Your task to perform on an android device: delete location history Image 0: 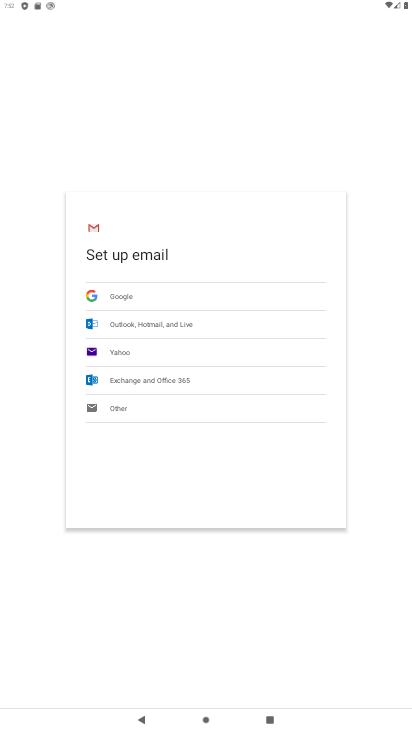
Step 0: press home button
Your task to perform on an android device: delete location history Image 1: 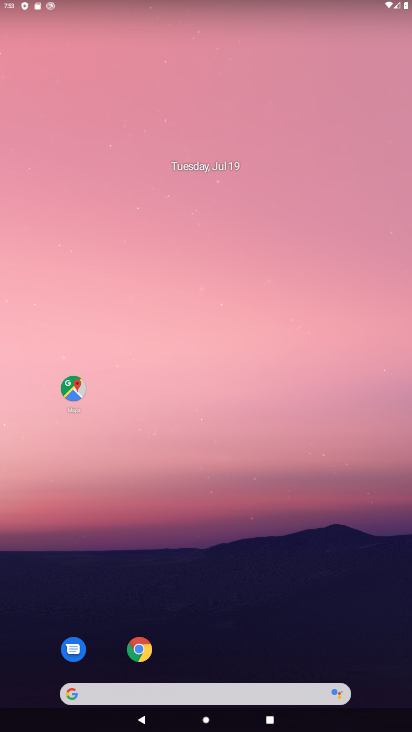
Step 1: click (68, 391)
Your task to perform on an android device: delete location history Image 2: 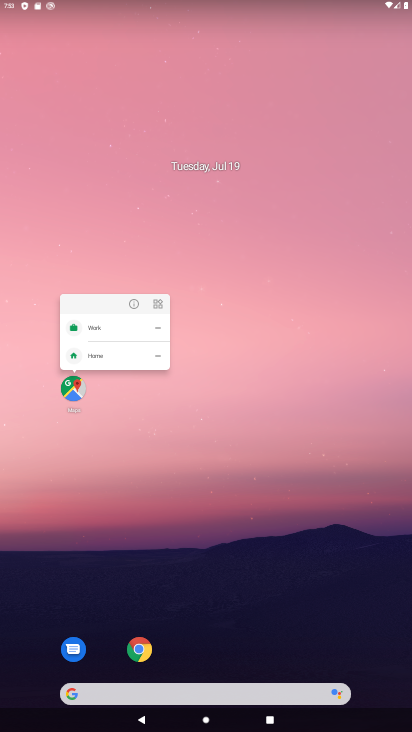
Step 2: click (67, 381)
Your task to perform on an android device: delete location history Image 3: 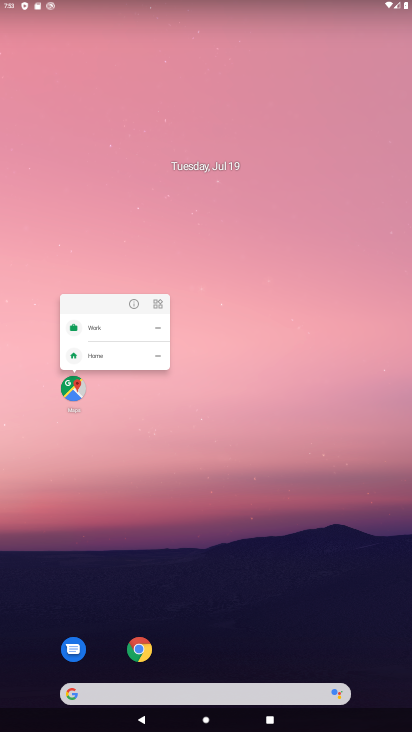
Step 3: click (67, 388)
Your task to perform on an android device: delete location history Image 4: 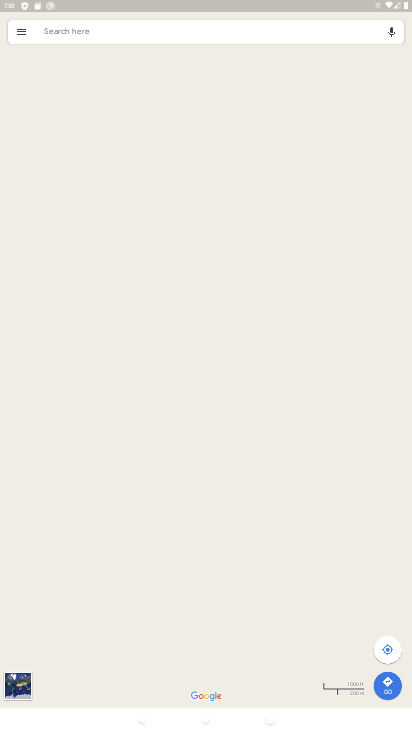
Step 4: click (15, 34)
Your task to perform on an android device: delete location history Image 5: 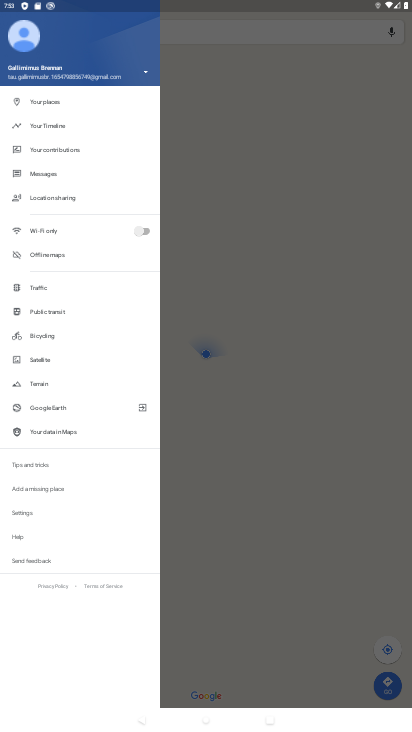
Step 5: click (44, 124)
Your task to perform on an android device: delete location history Image 6: 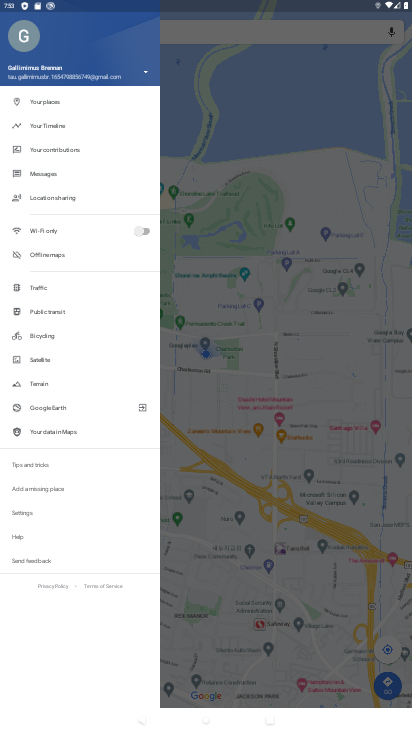
Step 6: click (57, 128)
Your task to perform on an android device: delete location history Image 7: 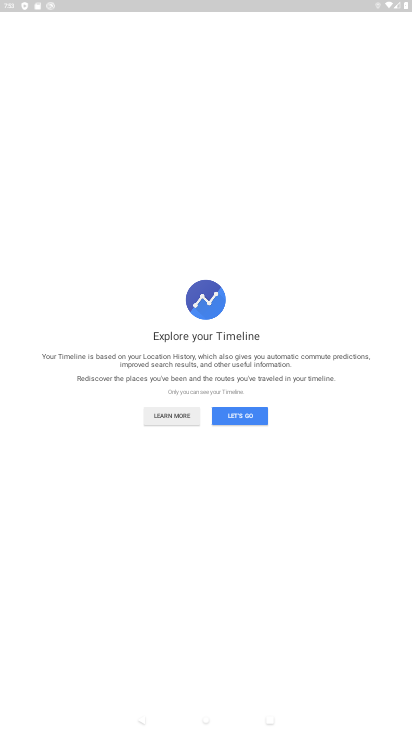
Step 7: click (238, 411)
Your task to perform on an android device: delete location history Image 8: 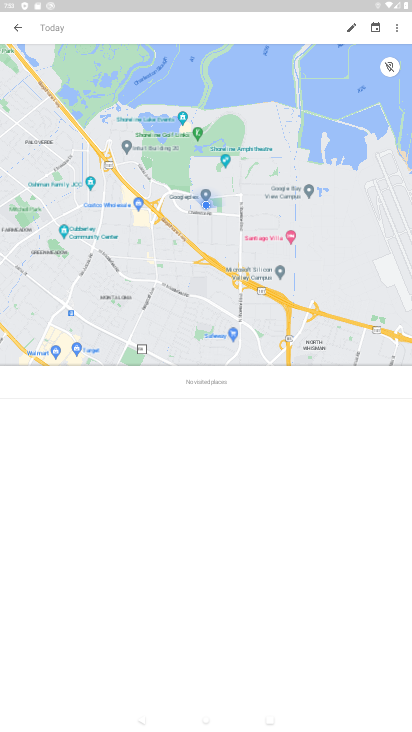
Step 8: click (396, 27)
Your task to perform on an android device: delete location history Image 9: 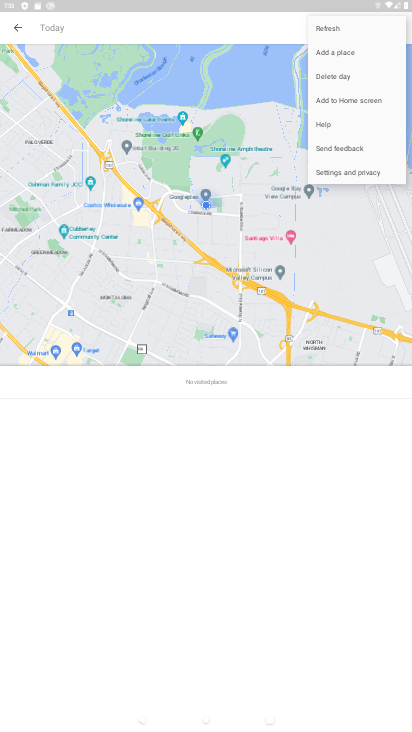
Step 9: click (341, 170)
Your task to perform on an android device: delete location history Image 10: 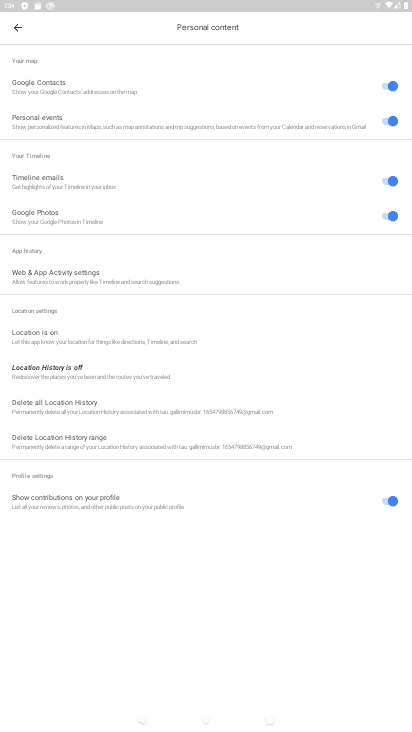
Step 10: click (92, 407)
Your task to perform on an android device: delete location history Image 11: 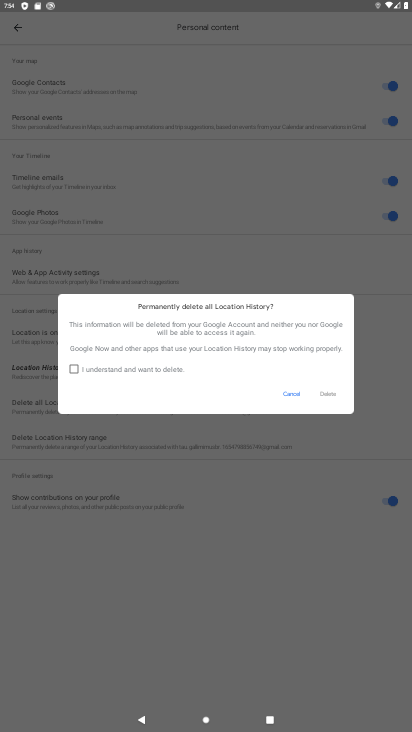
Step 11: click (69, 366)
Your task to perform on an android device: delete location history Image 12: 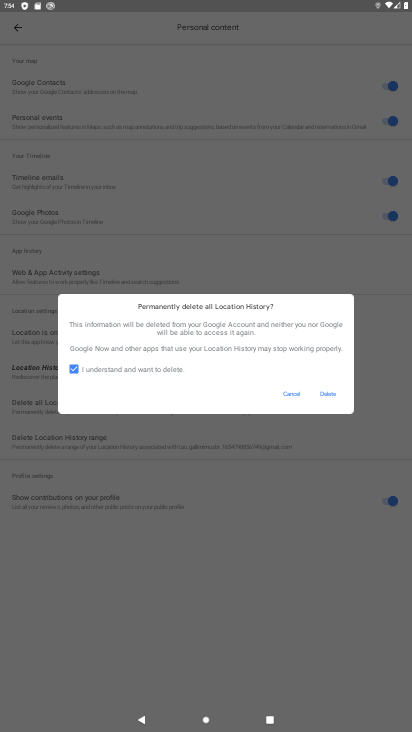
Step 12: click (332, 398)
Your task to perform on an android device: delete location history Image 13: 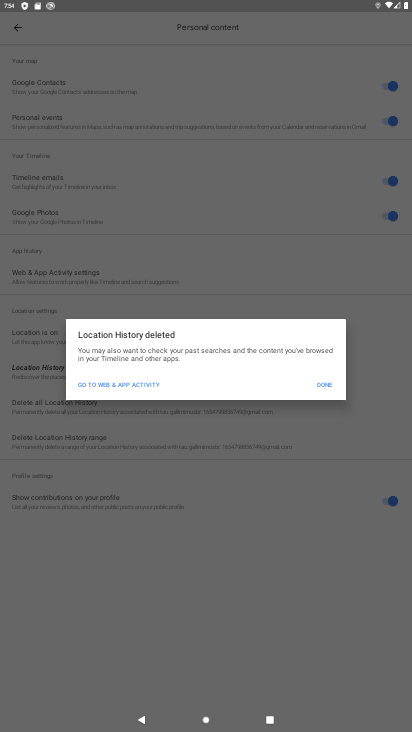
Step 13: click (328, 383)
Your task to perform on an android device: delete location history Image 14: 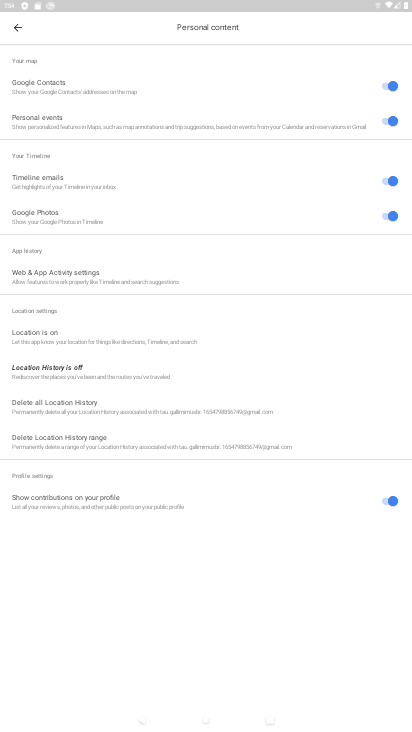
Step 14: task complete